Your task to perform on an android device: What's the top post on reddit today? Image 0: 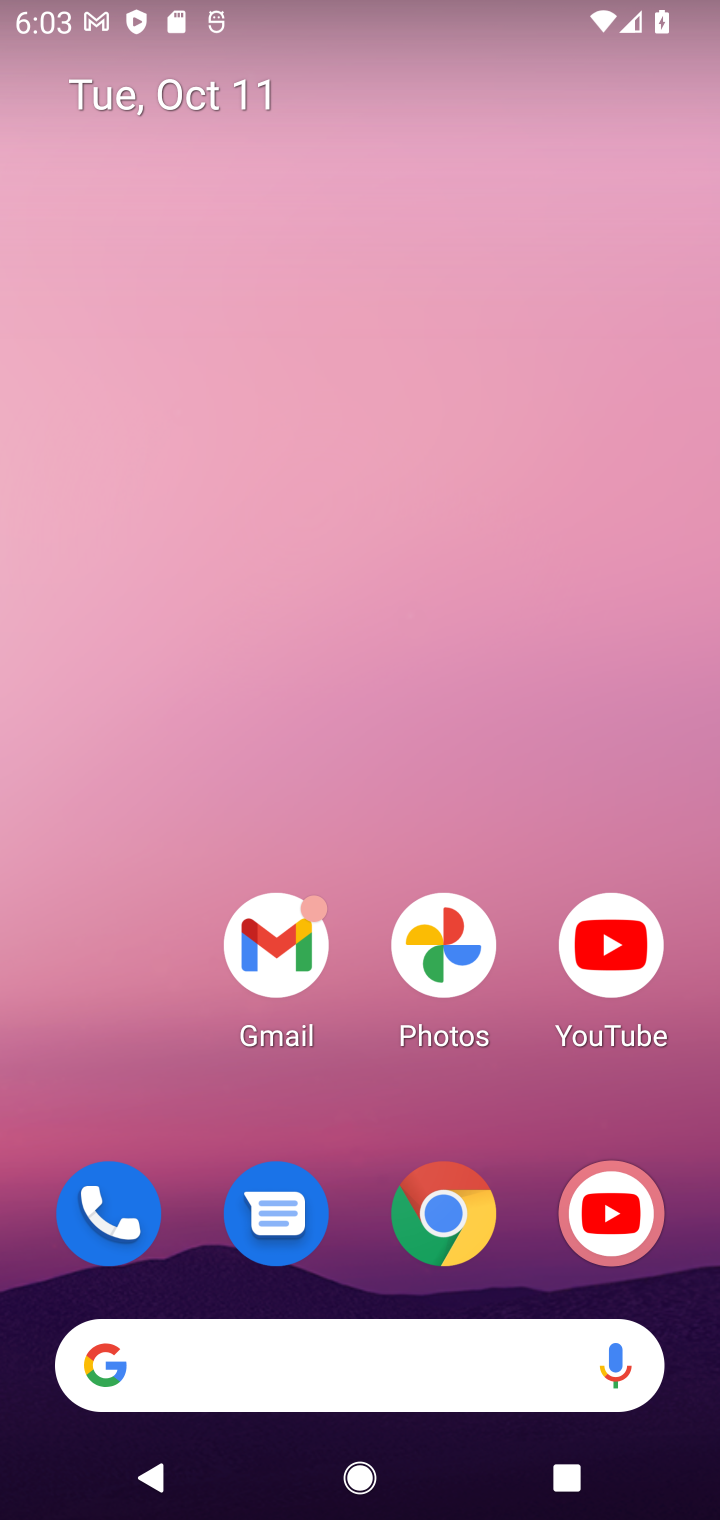
Step 0: click (190, 359)
Your task to perform on an android device: What's the top post on reddit today? Image 1: 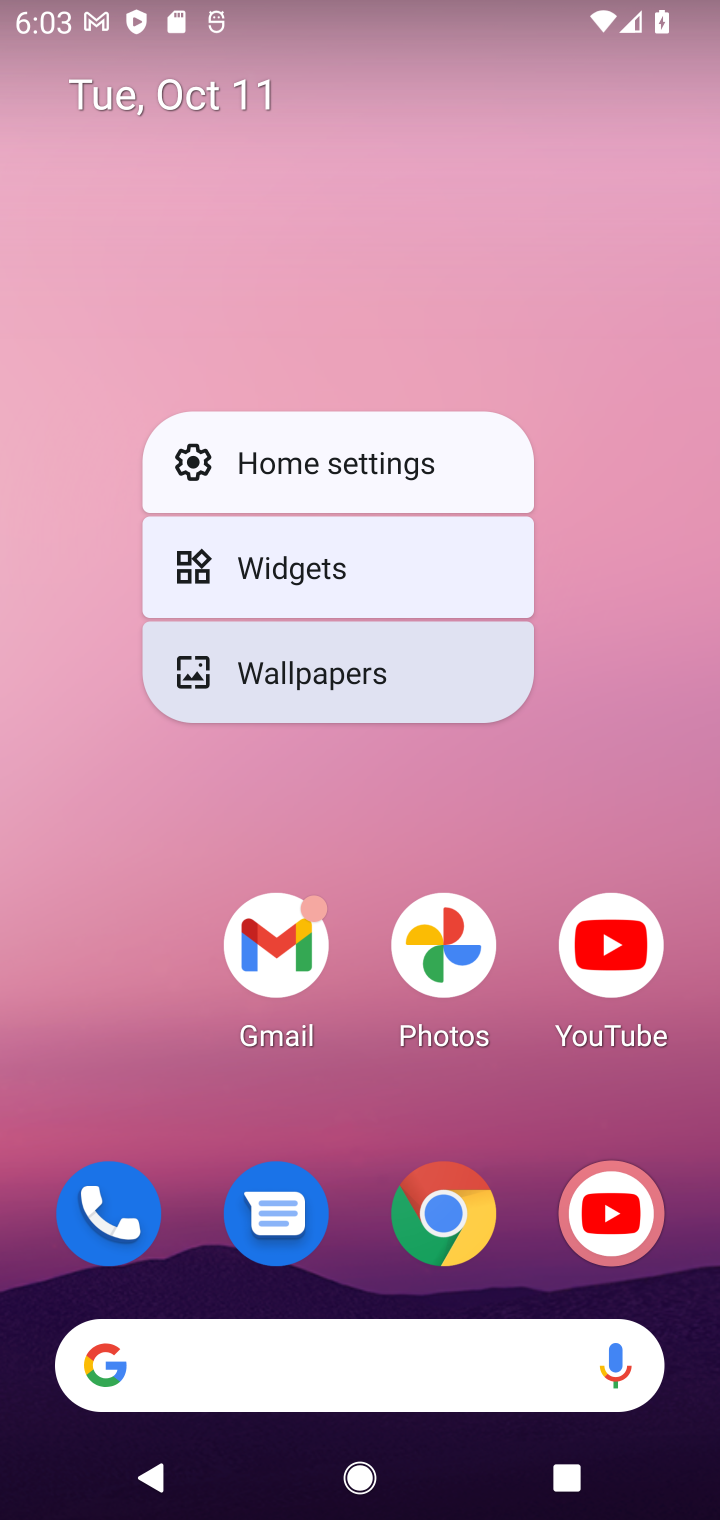
Step 1: drag from (381, 1181) to (366, 555)
Your task to perform on an android device: What's the top post on reddit today? Image 2: 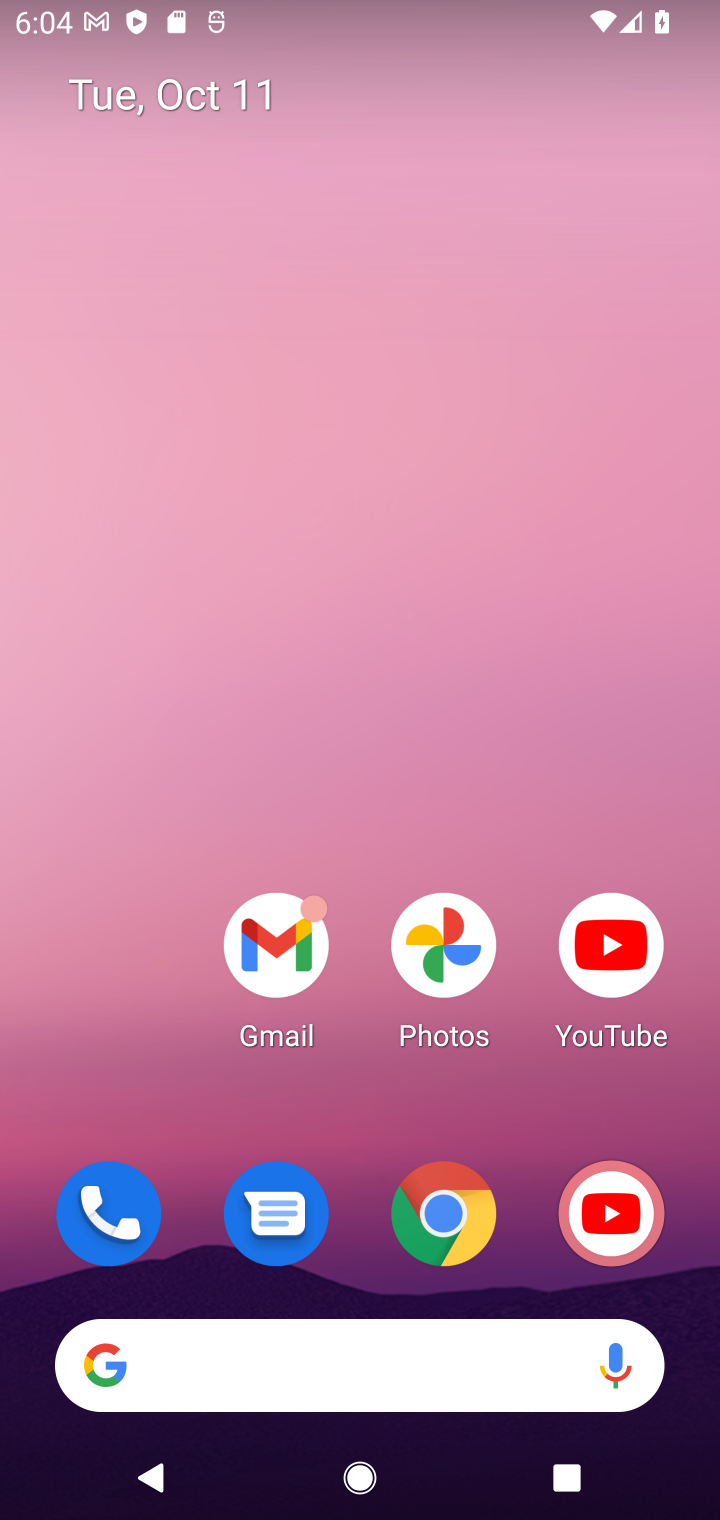
Step 2: click (213, 537)
Your task to perform on an android device: What's the top post on reddit today? Image 3: 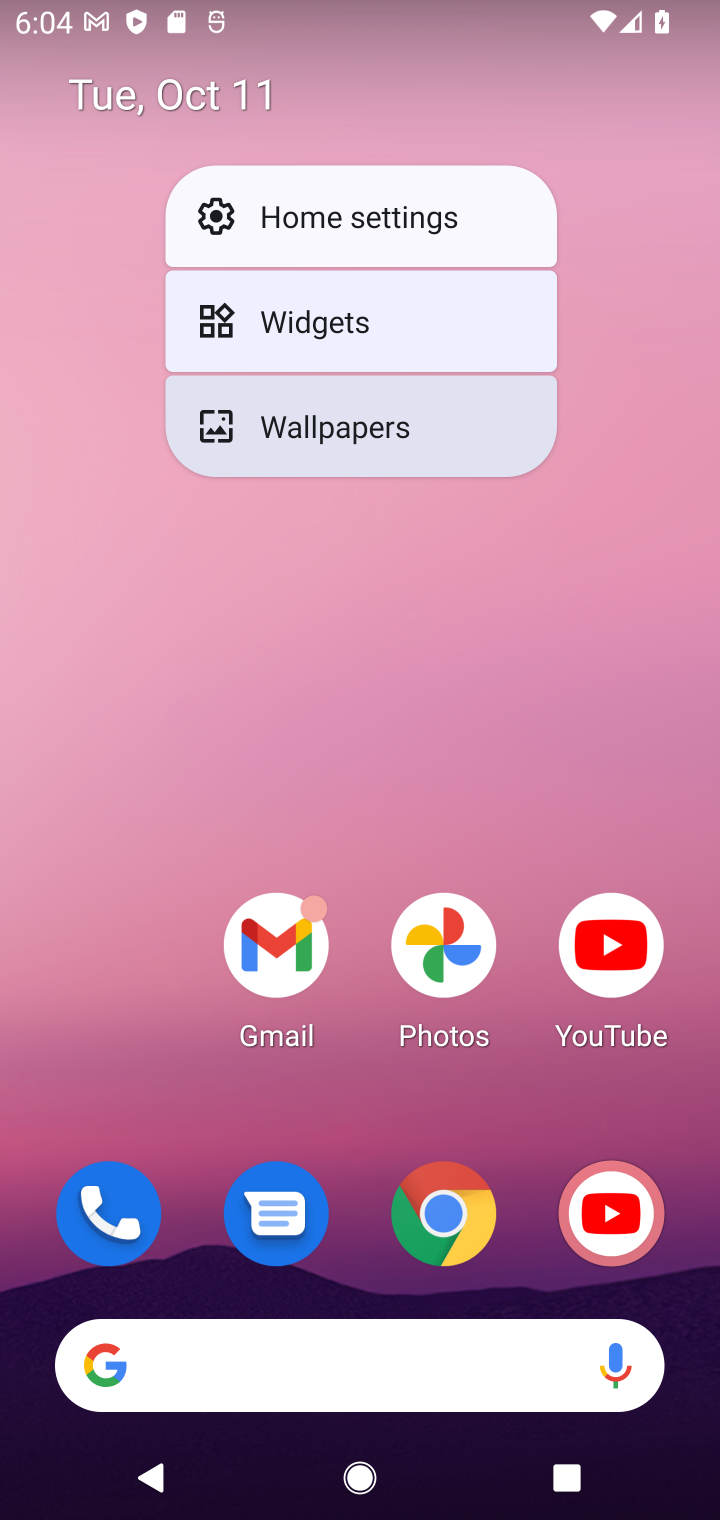
Step 3: drag from (337, 866) to (340, 535)
Your task to perform on an android device: What's the top post on reddit today? Image 4: 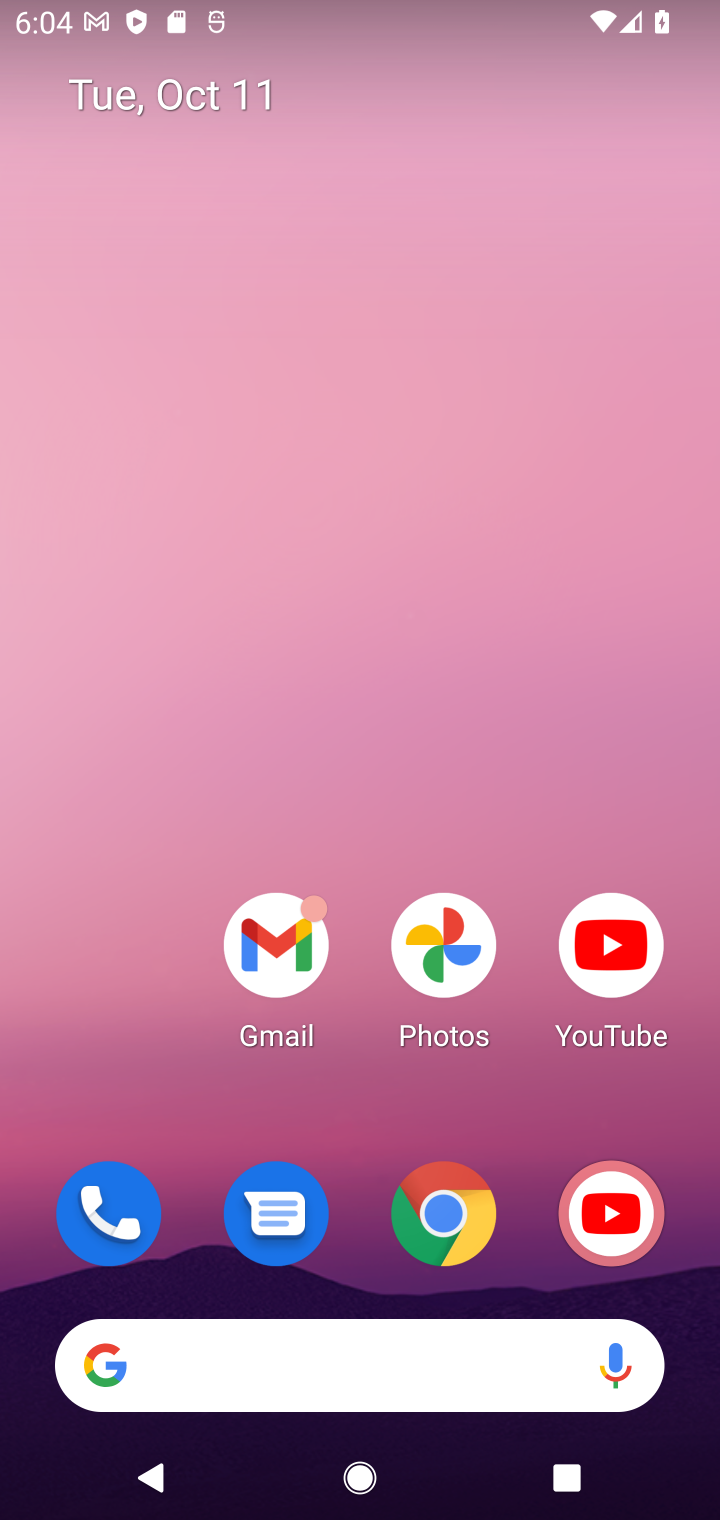
Step 4: drag from (370, 1002) to (352, 409)
Your task to perform on an android device: What's the top post on reddit today? Image 5: 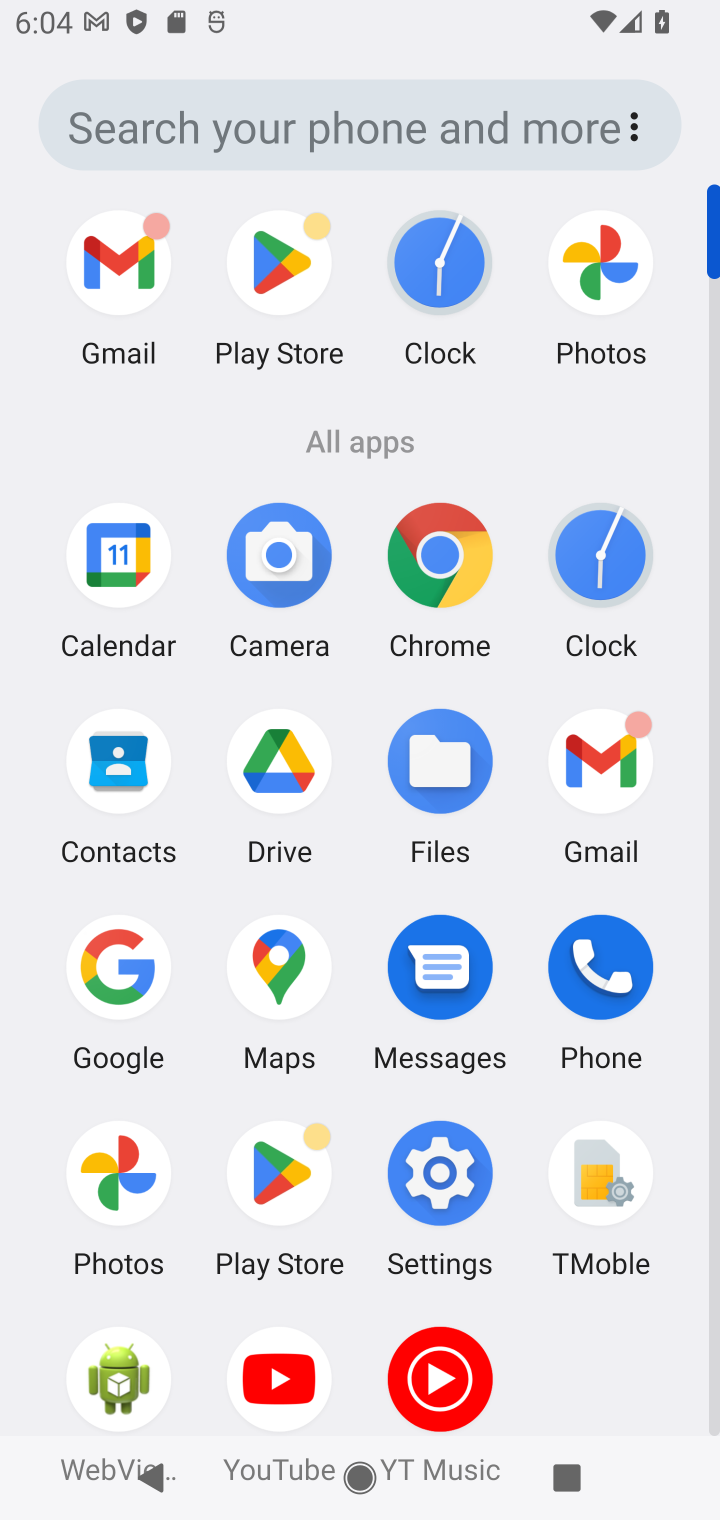
Step 5: click (137, 957)
Your task to perform on an android device: What's the top post on reddit today? Image 6: 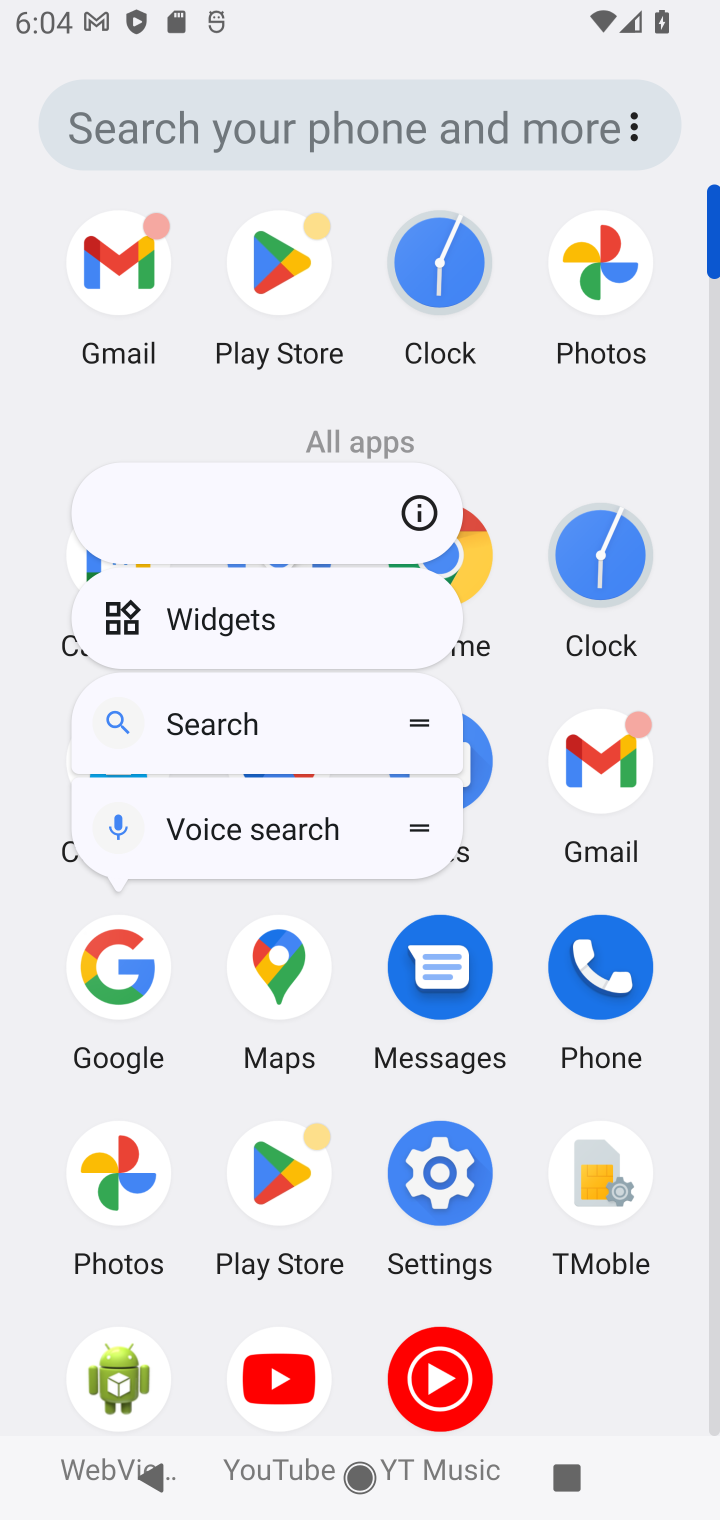
Step 6: click (83, 957)
Your task to perform on an android device: What's the top post on reddit today? Image 7: 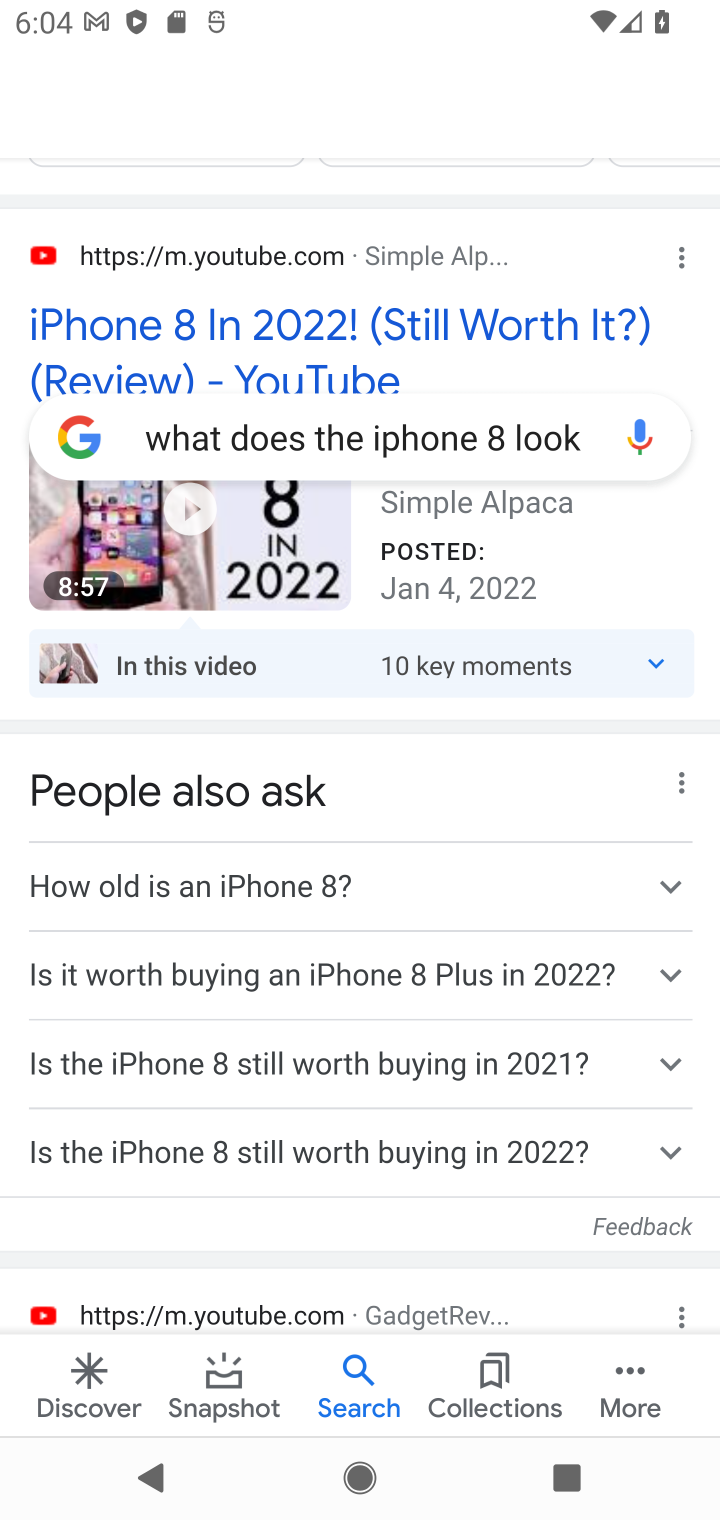
Step 7: click (304, 430)
Your task to perform on an android device: What's the top post on reddit today? Image 8: 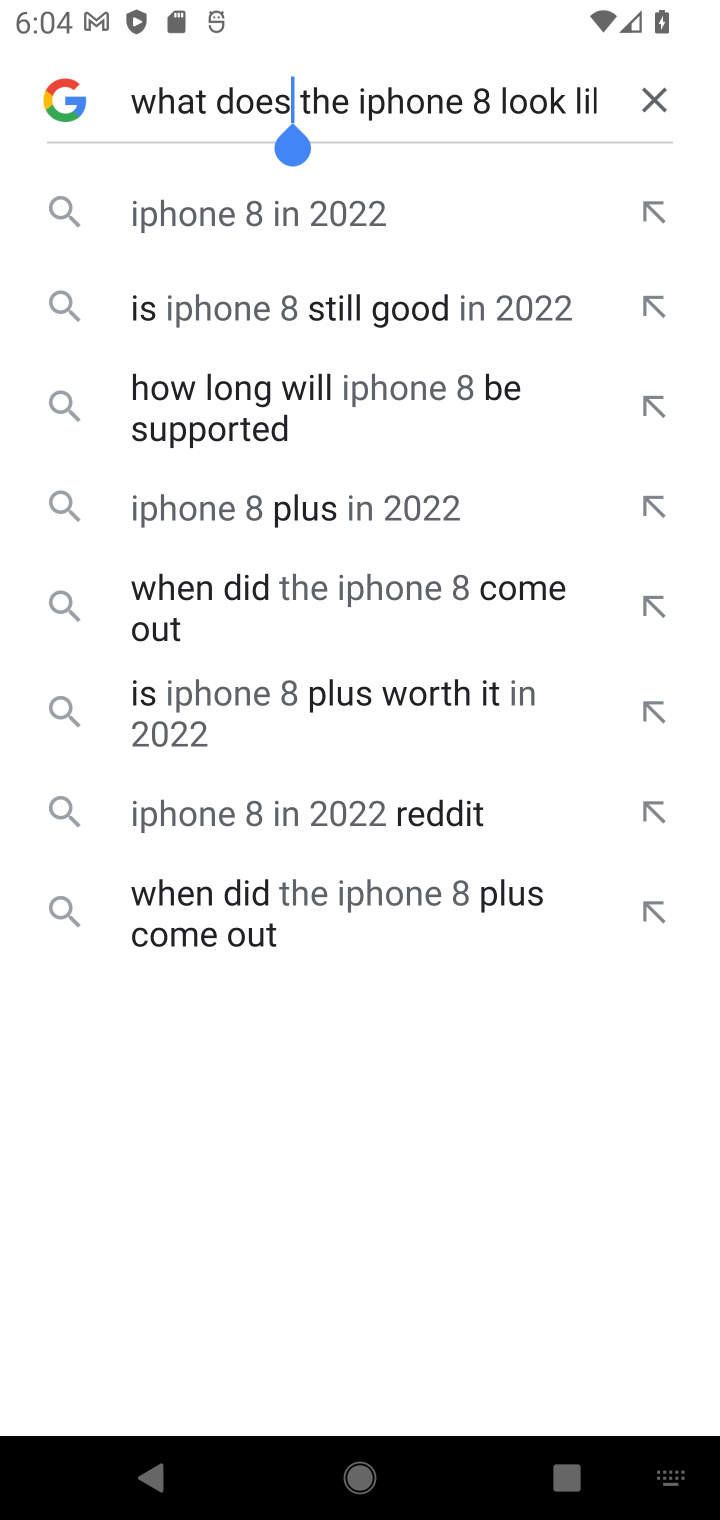
Step 8: click (660, 96)
Your task to perform on an android device: What's the top post on reddit today? Image 9: 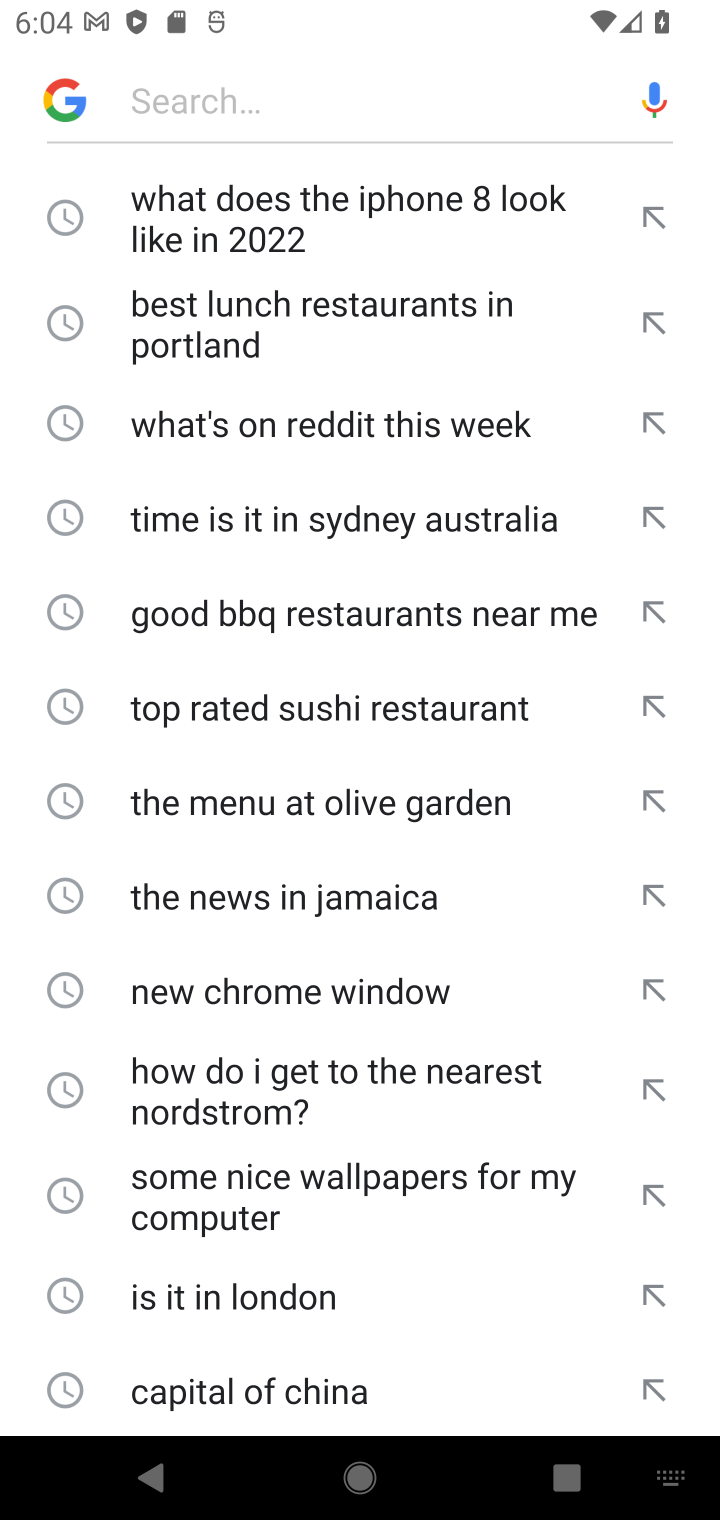
Step 9: click (261, 70)
Your task to perform on an android device: What's the top post on reddit today? Image 10: 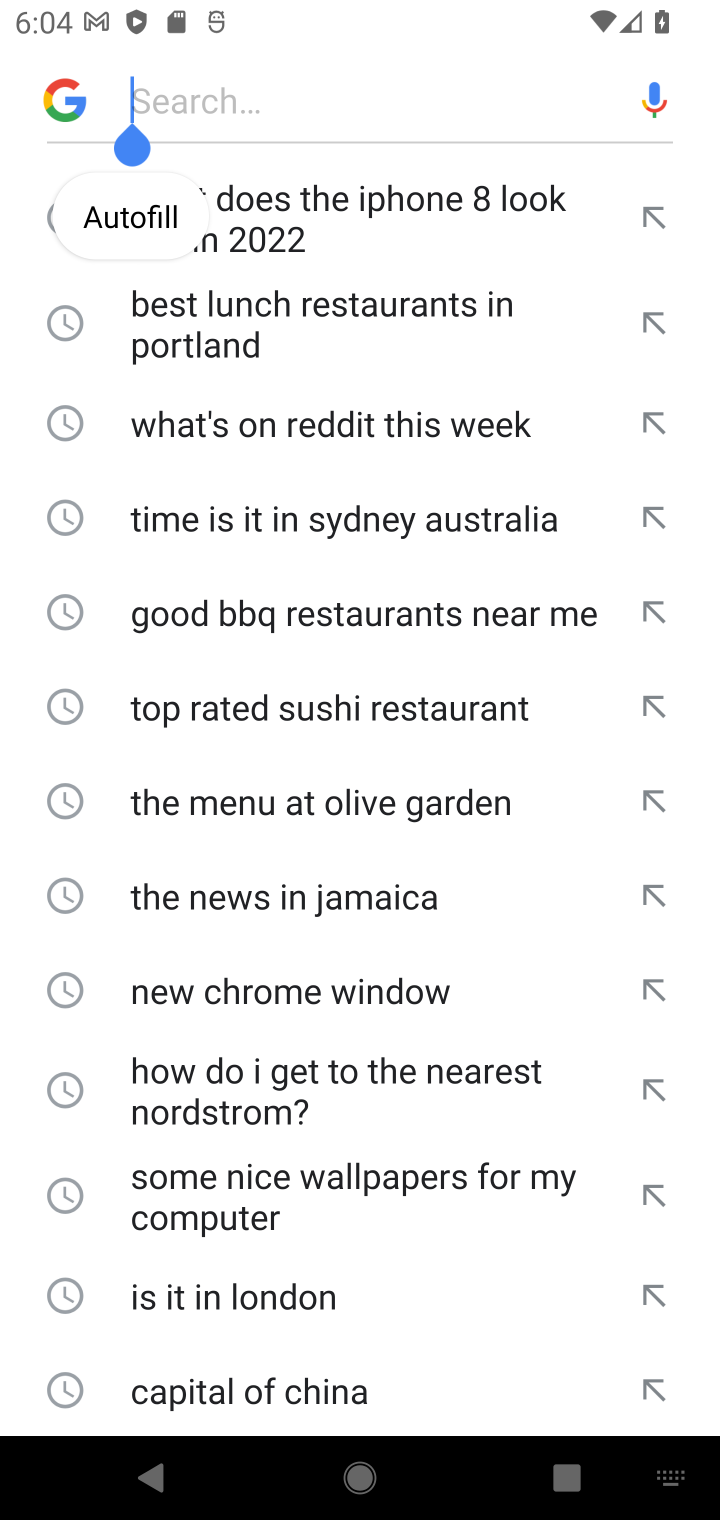
Step 10: type "What's the top post on reddit today "
Your task to perform on an android device: What's the top post on reddit today? Image 11: 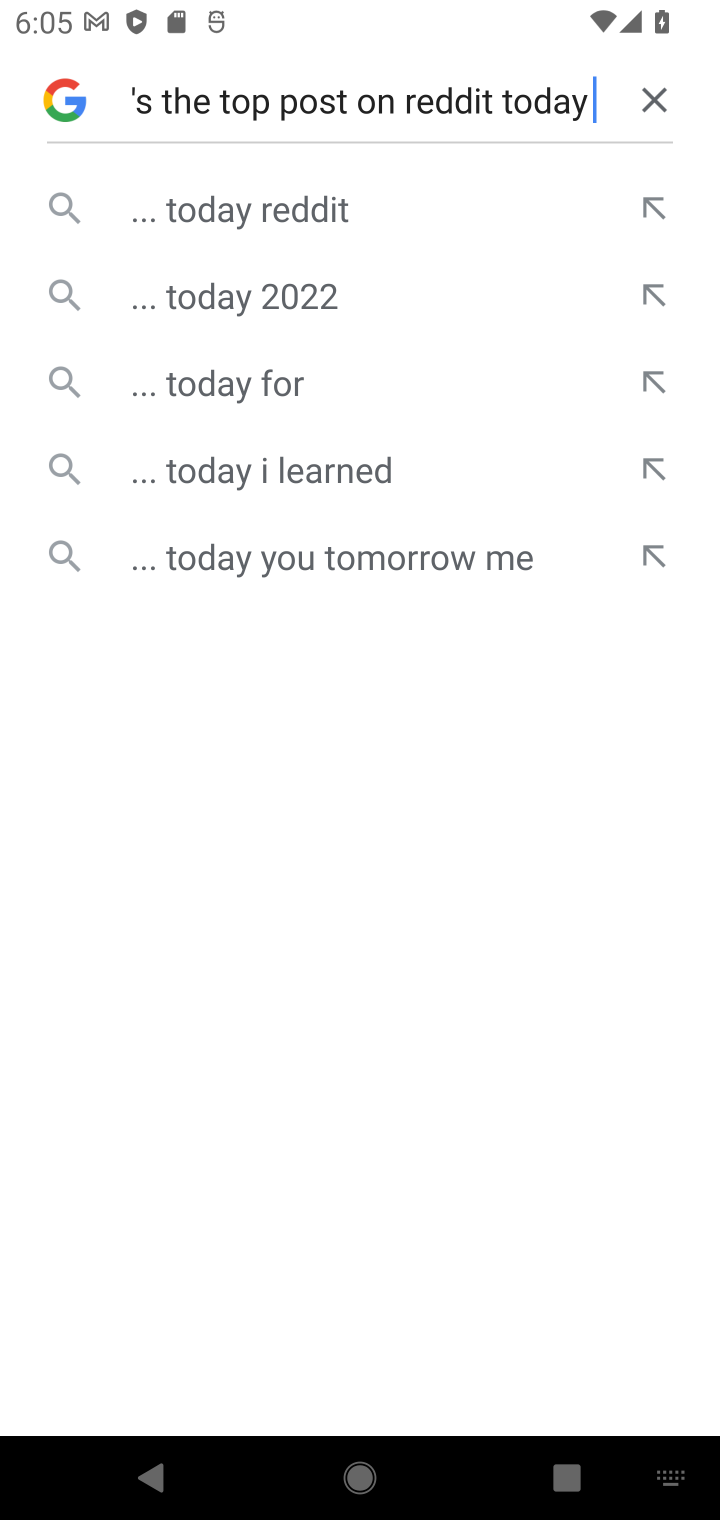
Step 11: click (228, 282)
Your task to perform on an android device: What's the top post on reddit today? Image 12: 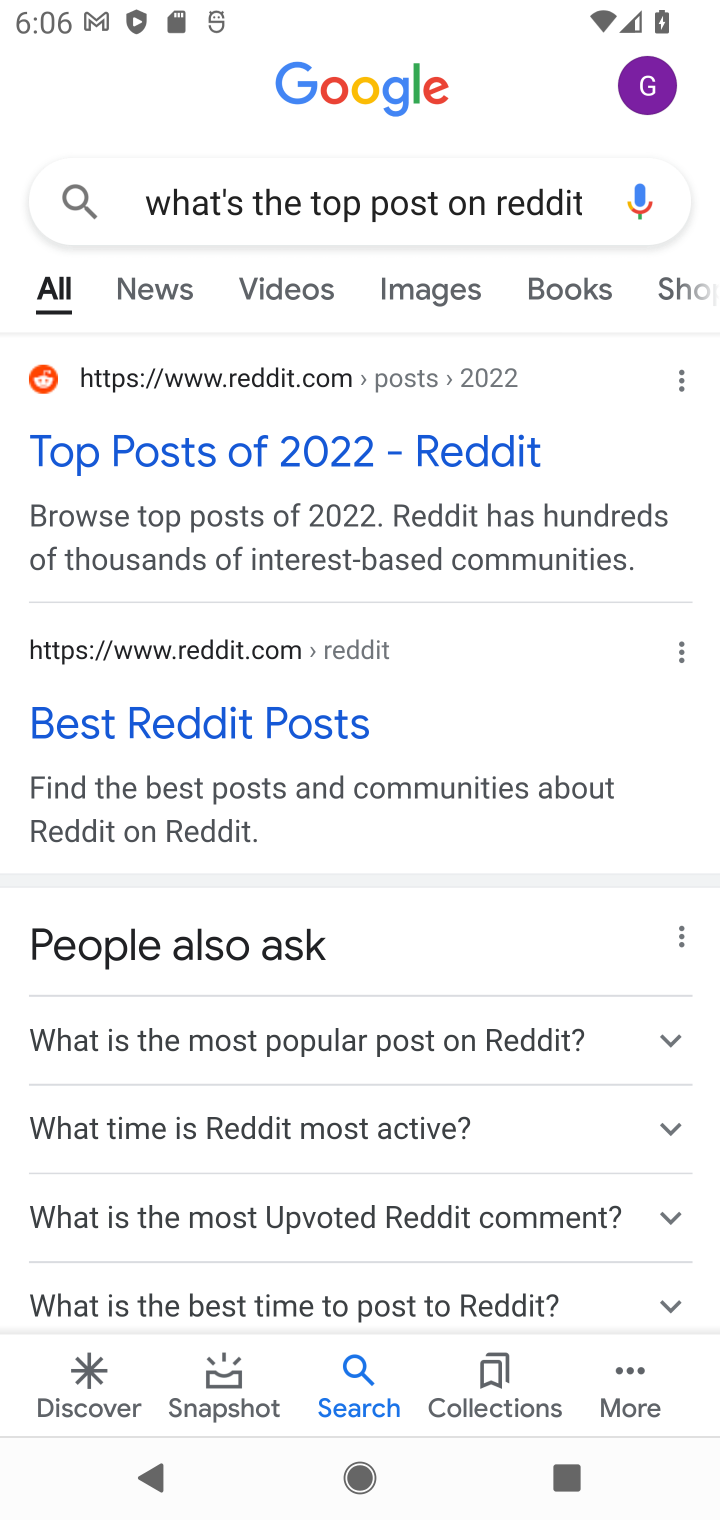
Step 12: click (234, 458)
Your task to perform on an android device: What's the top post on reddit today? Image 13: 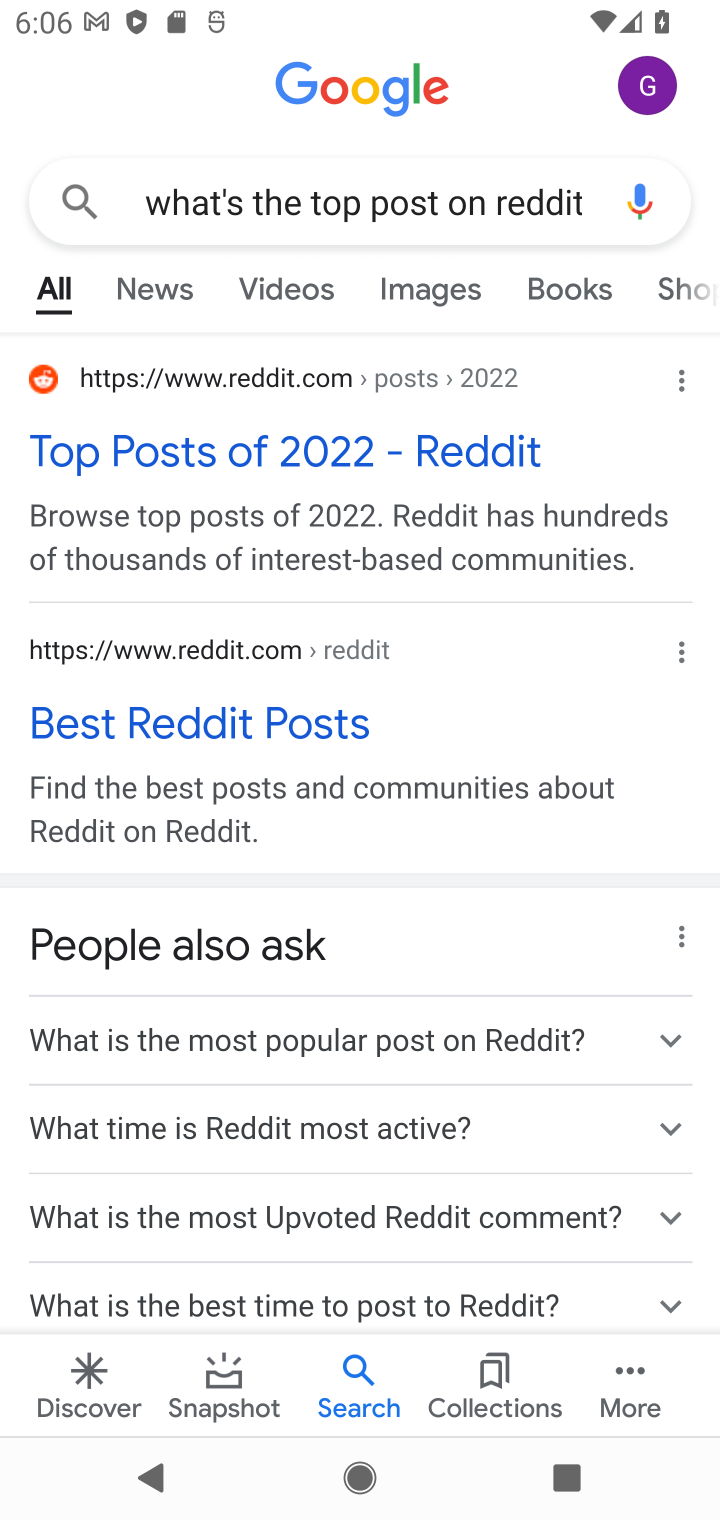
Step 13: click (434, 446)
Your task to perform on an android device: What's the top post on reddit today? Image 14: 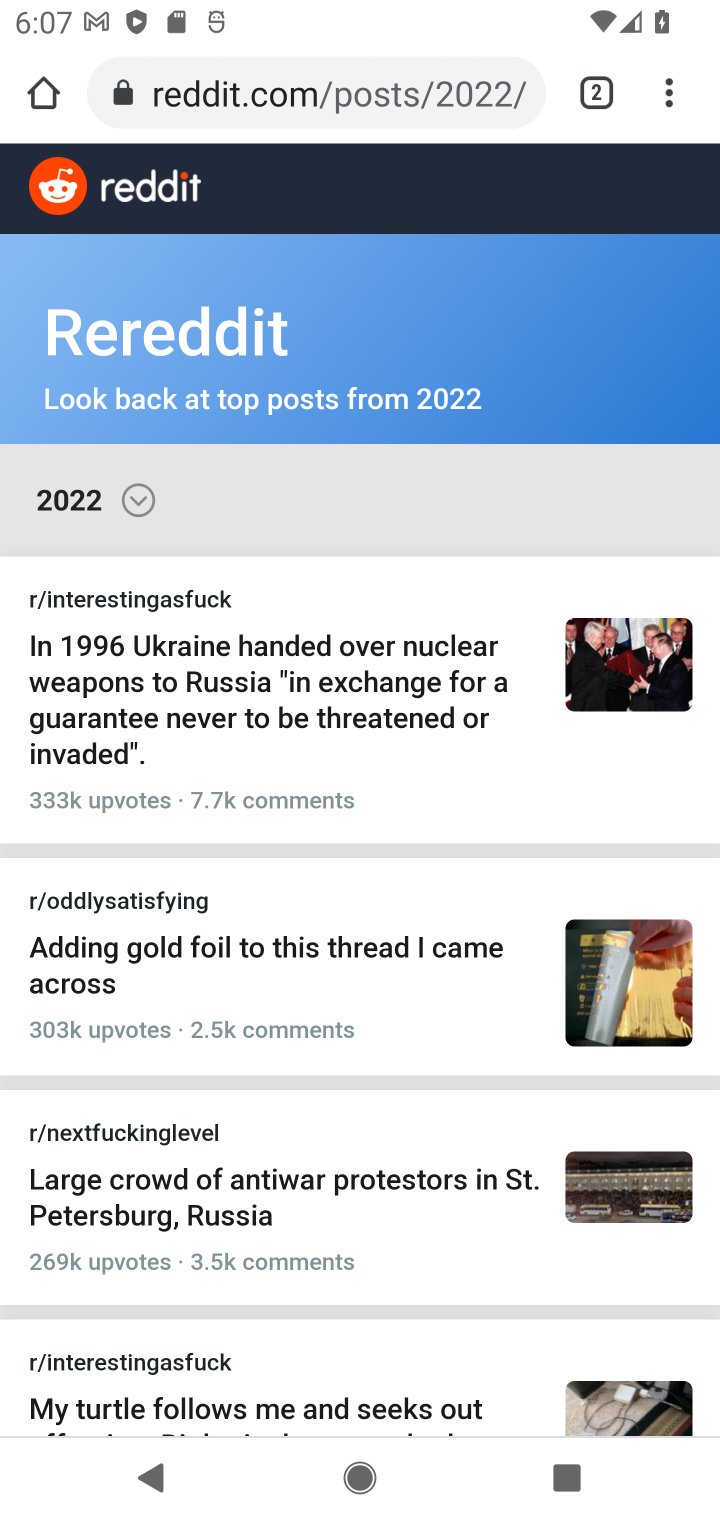
Step 14: task complete